Your task to perform on an android device: move a message to another label in the gmail app Image 0: 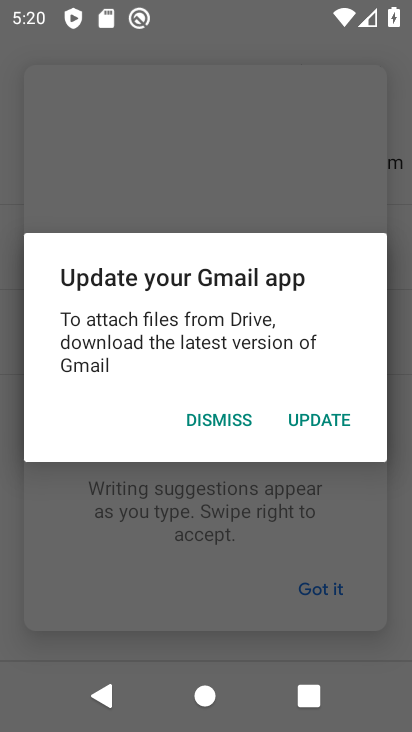
Step 0: press home button
Your task to perform on an android device: move a message to another label in the gmail app Image 1: 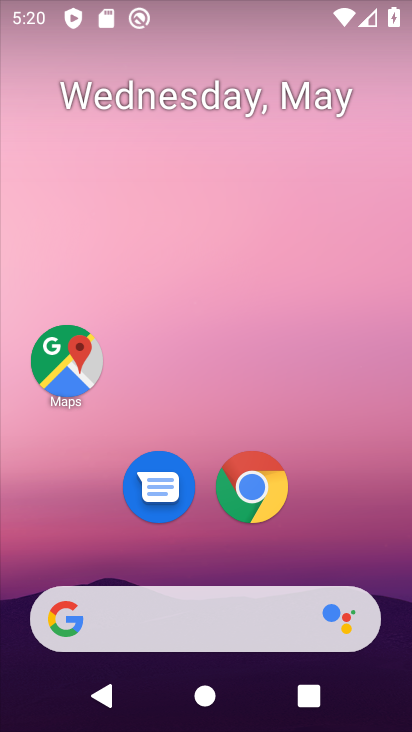
Step 1: drag from (302, 530) to (182, 74)
Your task to perform on an android device: move a message to another label in the gmail app Image 2: 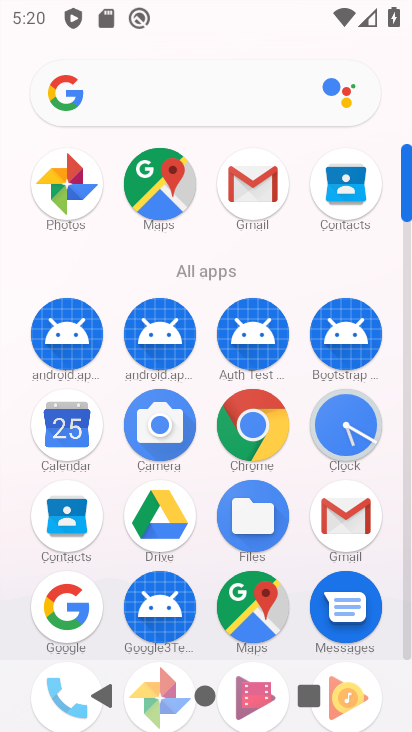
Step 2: click (255, 202)
Your task to perform on an android device: move a message to another label in the gmail app Image 3: 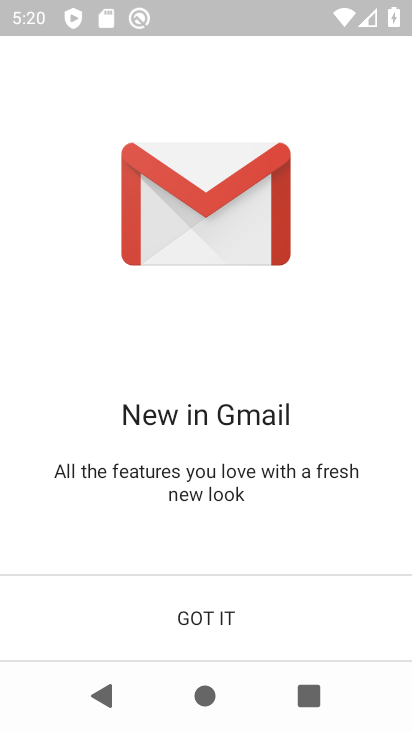
Step 3: click (198, 598)
Your task to perform on an android device: move a message to another label in the gmail app Image 4: 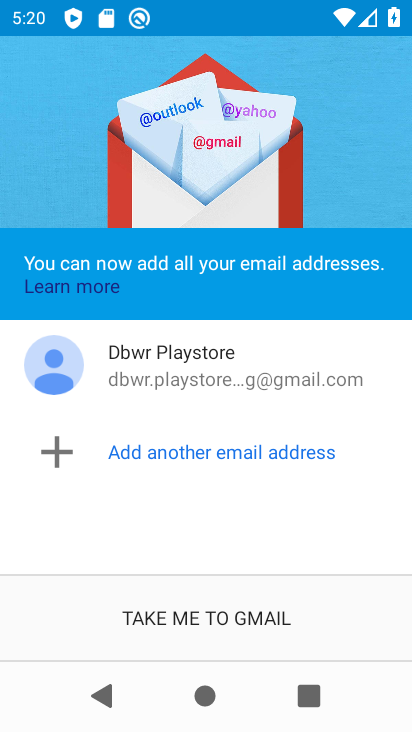
Step 4: click (198, 609)
Your task to perform on an android device: move a message to another label in the gmail app Image 5: 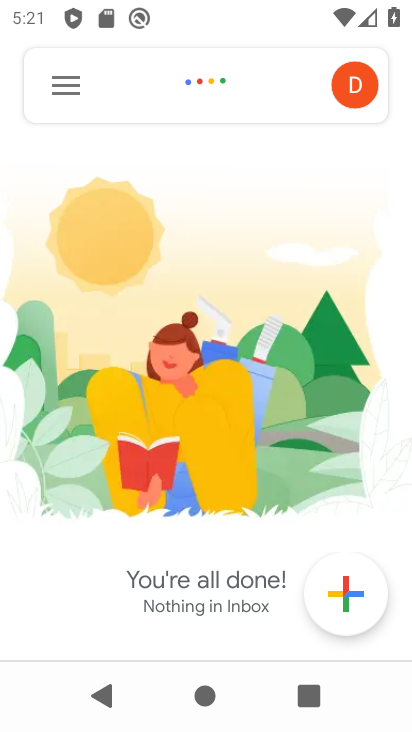
Step 5: click (65, 88)
Your task to perform on an android device: move a message to another label in the gmail app Image 6: 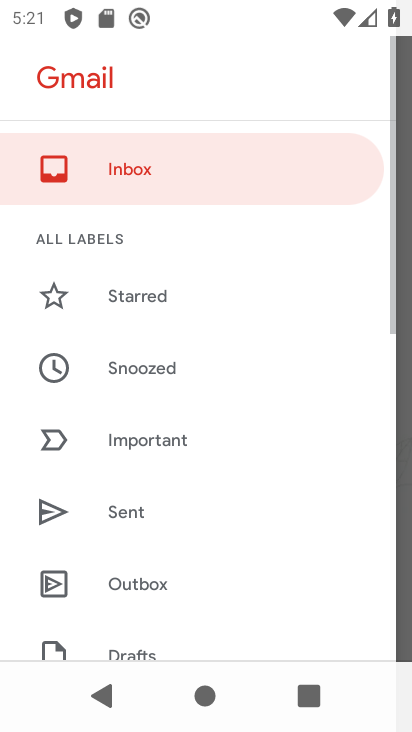
Step 6: drag from (185, 597) to (169, 281)
Your task to perform on an android device: move a message to another label in the gmail app Image 7: 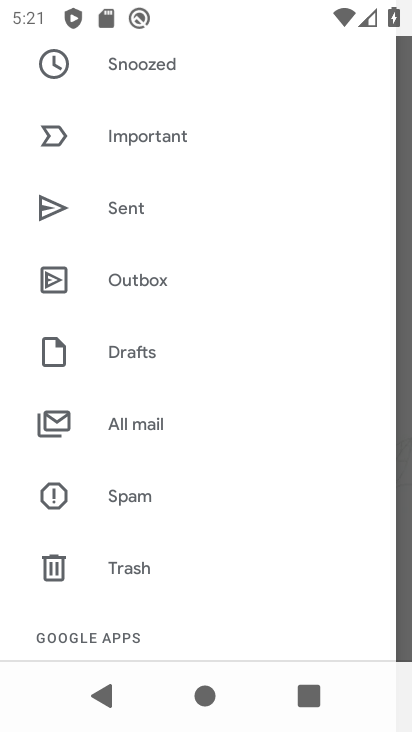
Step 7: click (141, 435)
Your task to perform on an android device: move a message to another label in the gmail app Image 8: 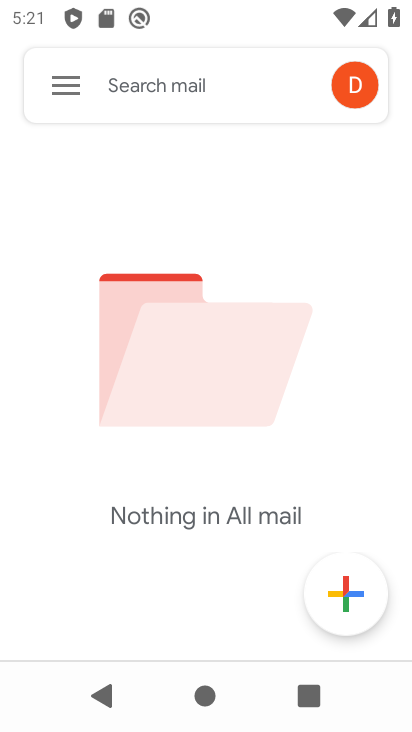
Step 8: task complete